Your task to perform on an android device: Do I have any events today? Image 0: 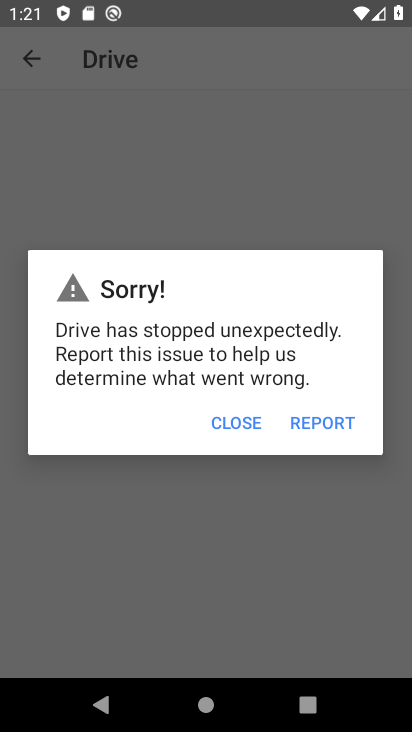
Step 0: press home button
Your task to perform on an android device: Do I have any events today? Image 1: 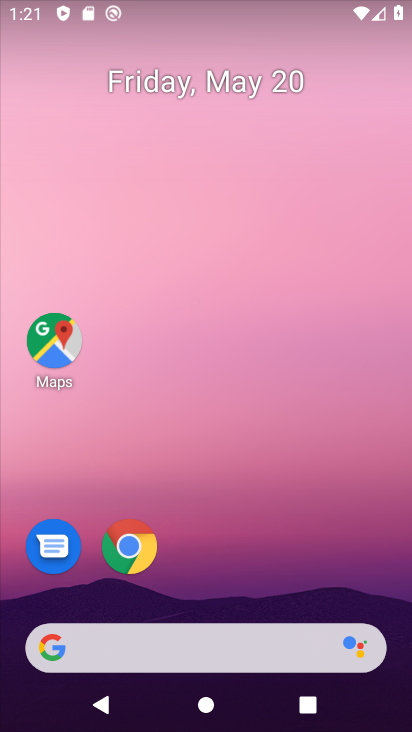
Step 1: drag from (251, 683) to (308, 52)
Your task to perform on an android device: Do I have any events today? Image 2: 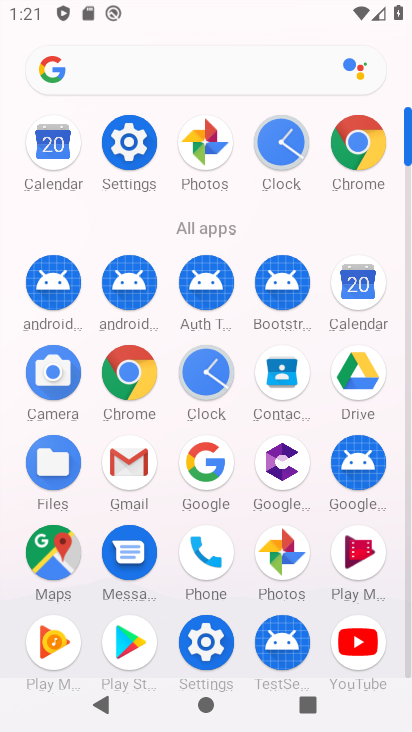
Step 2: click (364, 292)
Your task to perform on an android device: Do I have any events today? Image 3: 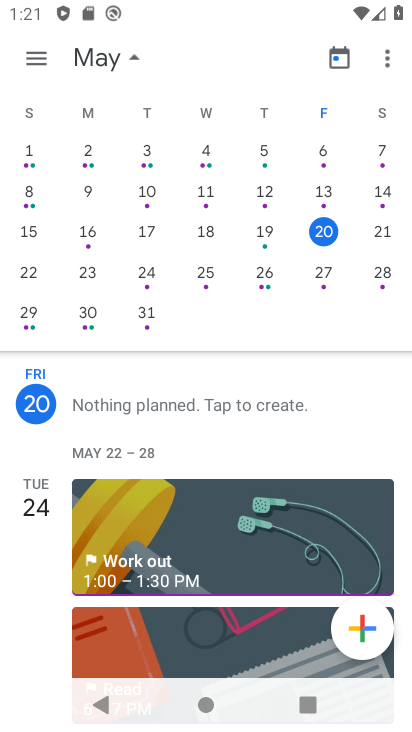
Step 3: click (319, 230)
Your task to perform on an android device: Do I have any events today? Image 4: 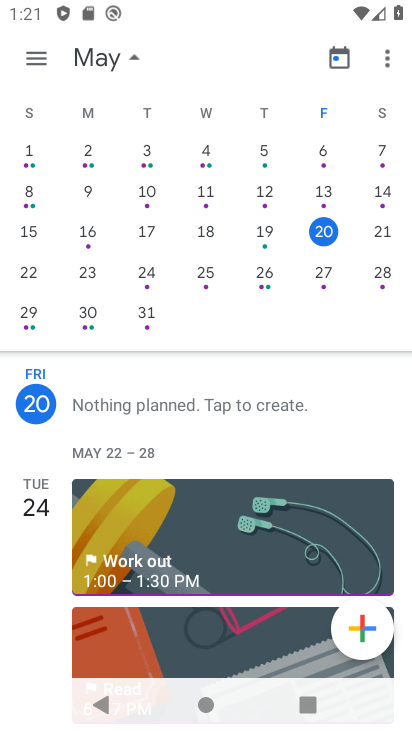
Step 4: task complete